Your task to perform on an android device: stop showing notifications on the lock screen Image 0: 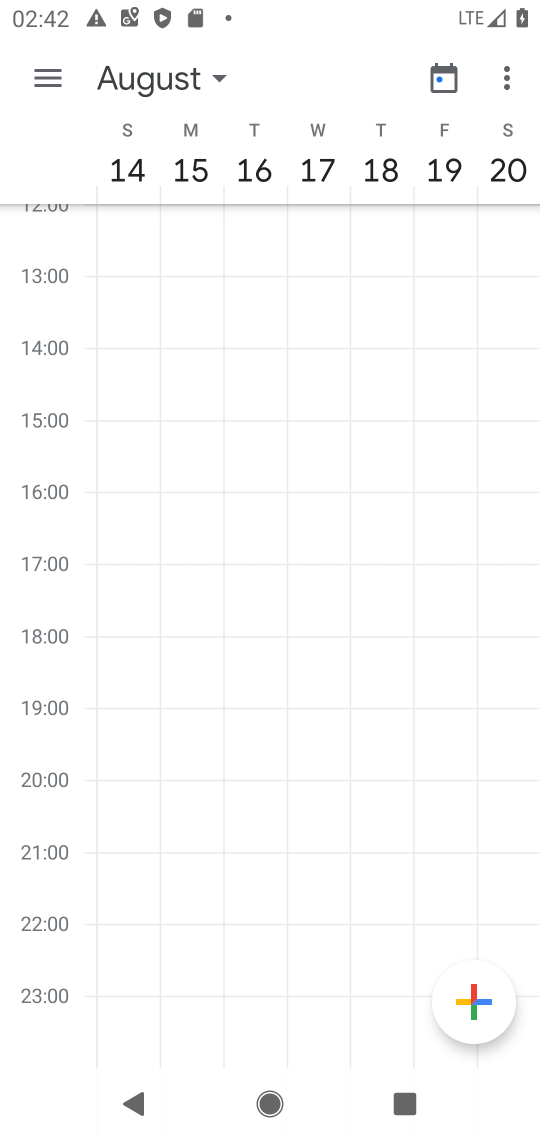
Step 0: press home button
Your task to perform on an android device: stop showing notifications on the lock screen Image 1: 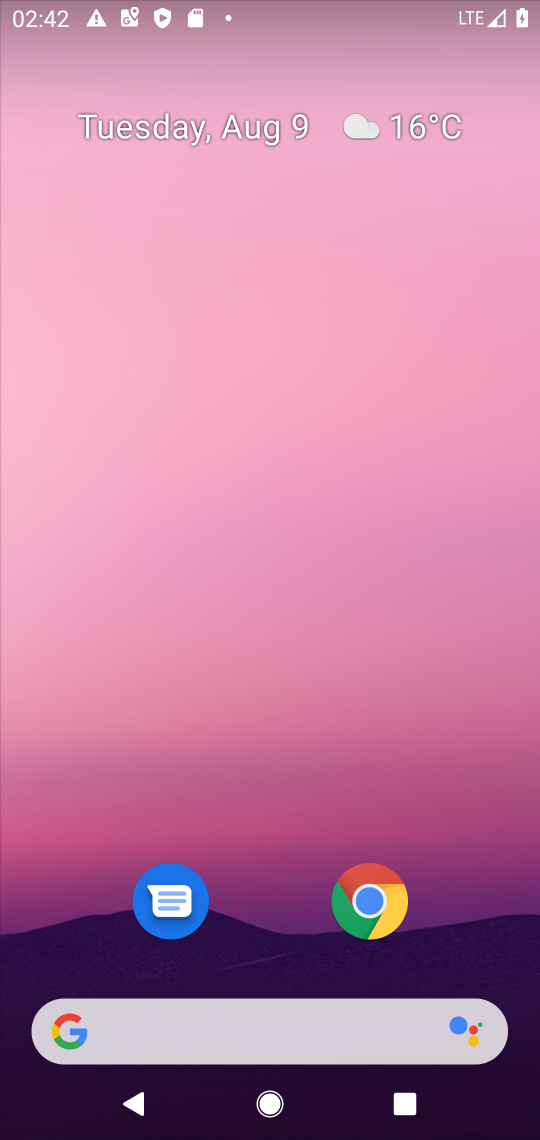
Step 1: drag from (515, 962) to (455, 351)
Your task to perform on an android device: stop showing notifications on the lock screen Image 2: 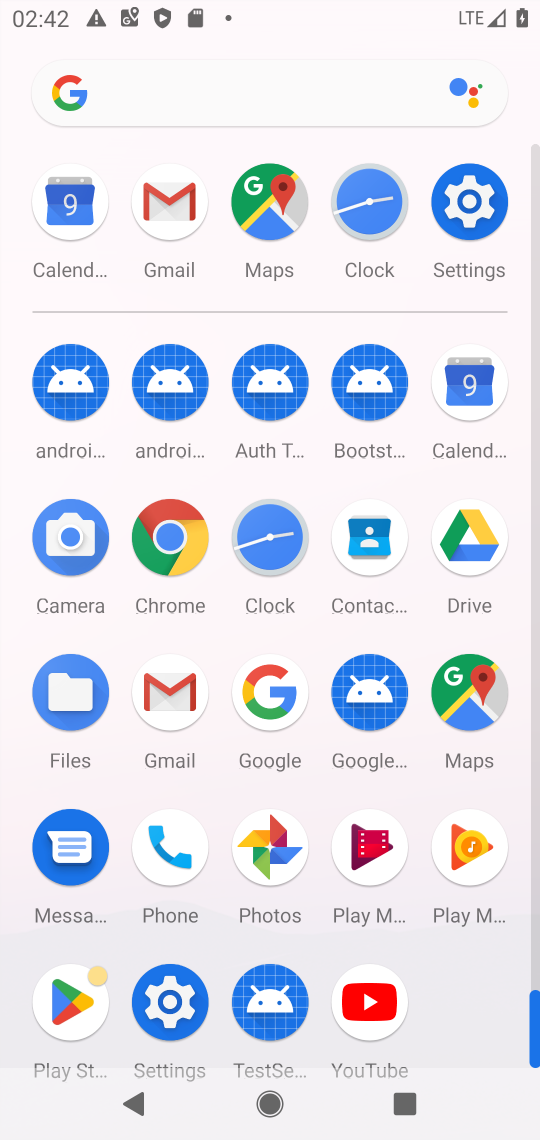
Step 2: click (170, 1006)
Your task to perform on an android device: stop showing notifications on the lock screen Image 3: 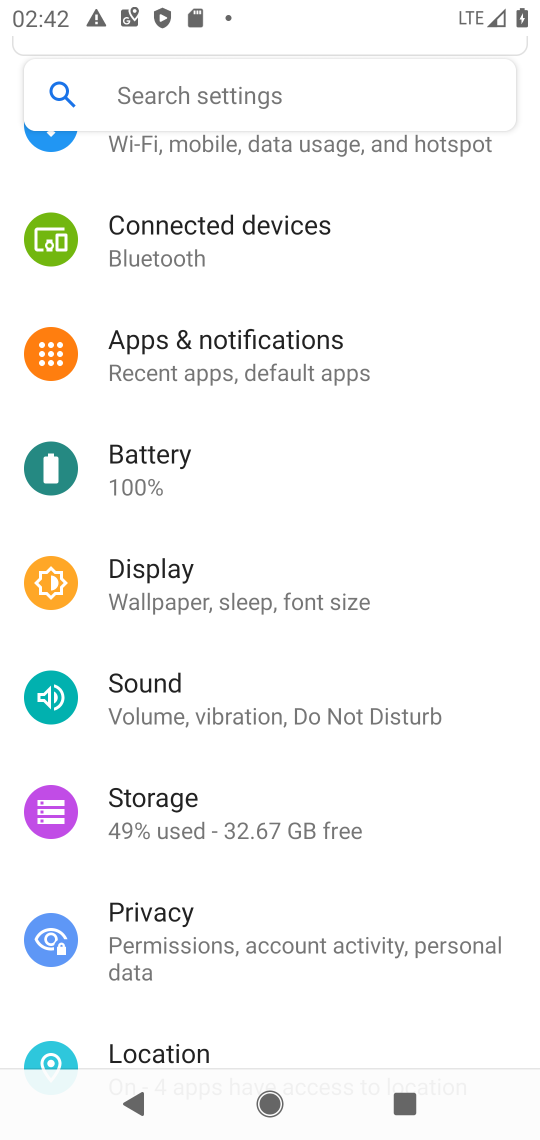
Step 3: click (213, 343)
Your task to perform on an android device: stop showing notifications on the lock screen Image 4: 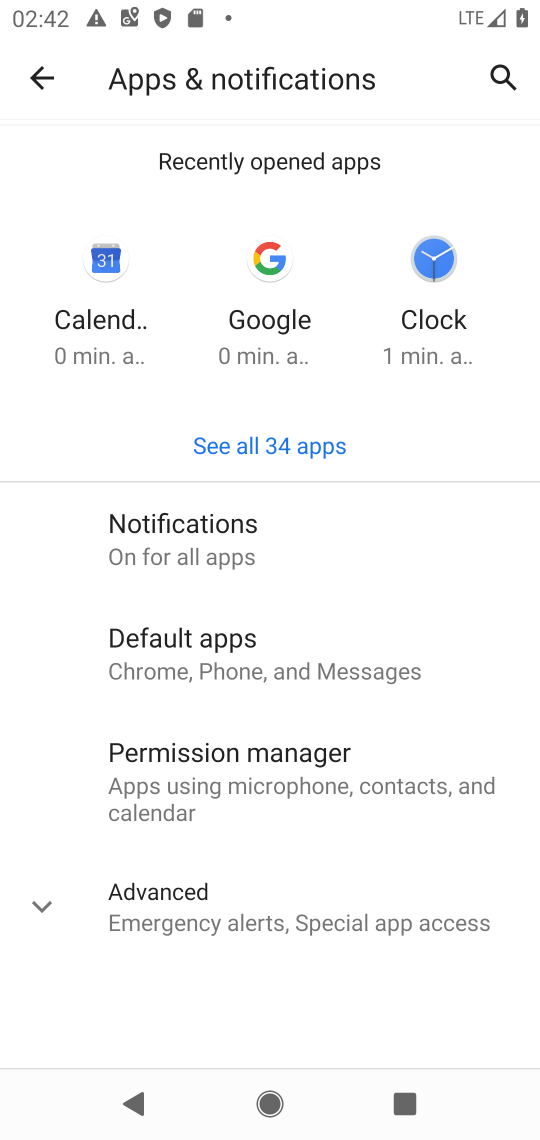
Step 4: click (171, 547)
Your task to perform on an android device: stop showing notifications on the lock screen Image 5: 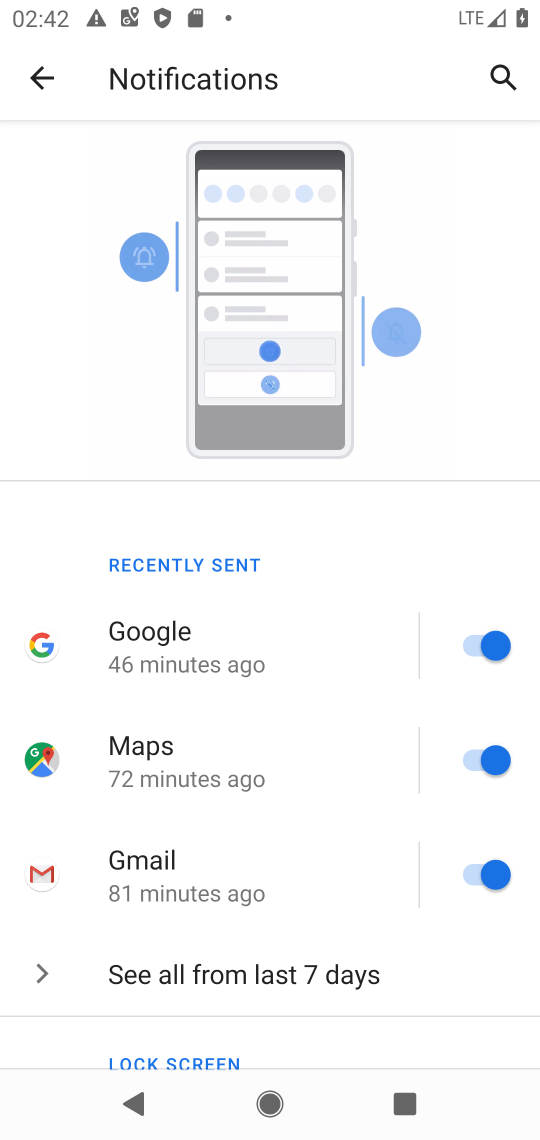
Step 5: drag from (421, 999) to (428, 320)
Your task to perform on an android device: stop showing notifications on the lock screen Image 6: 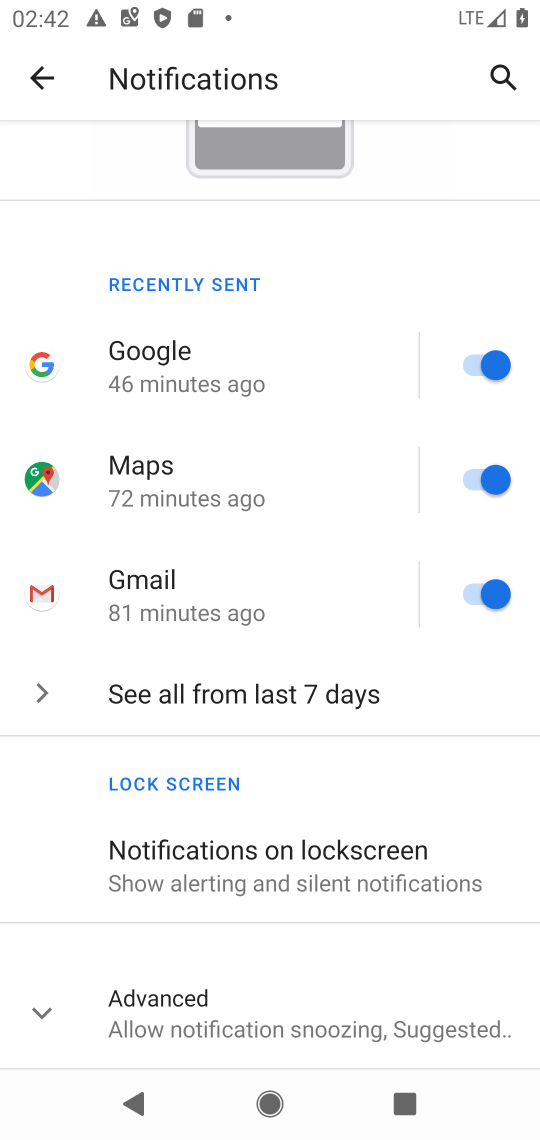
Step 6: click (211, 869)
Your task to perform on an android device: stop showing notifications on the lock screen Image 7: 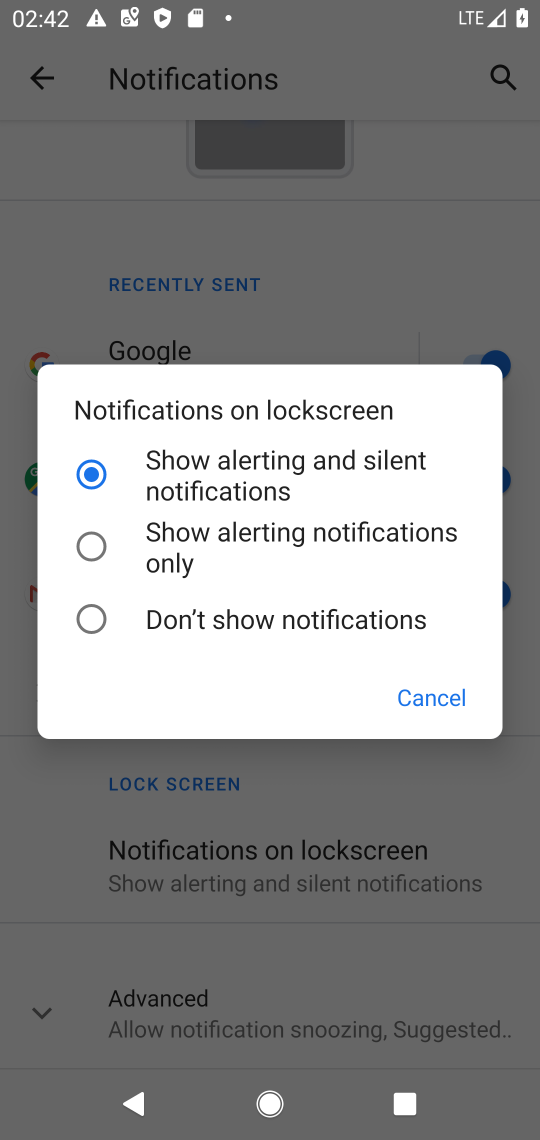
Step 7: click (90, 620)
Your task to perform on an android device: stop showing notifications on the lock screen Image 8: 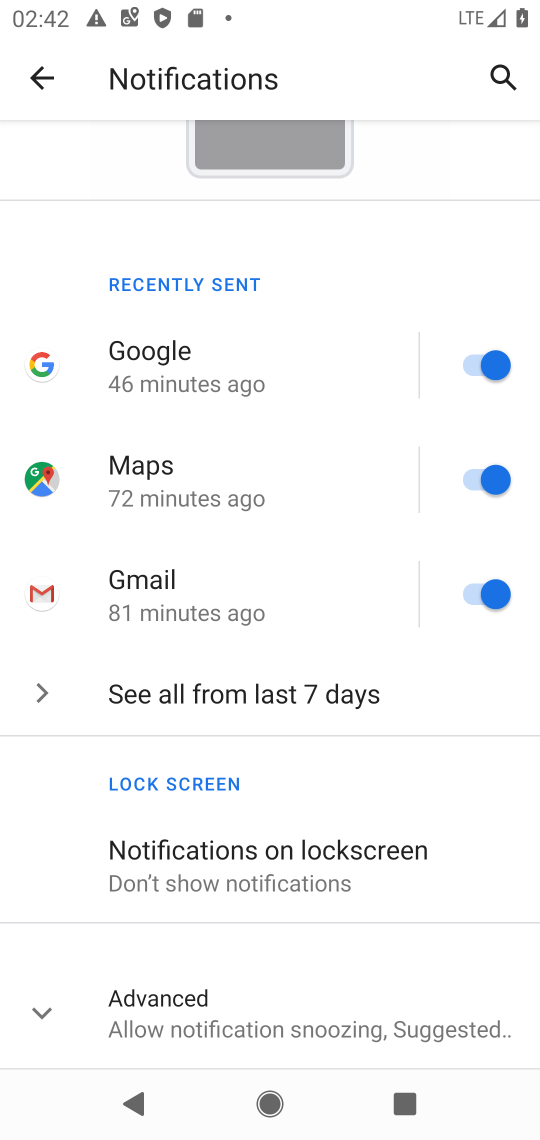
Step 8: task complete